Your task to perform on an android device: Open Chrome and go to the settings page Image 0: 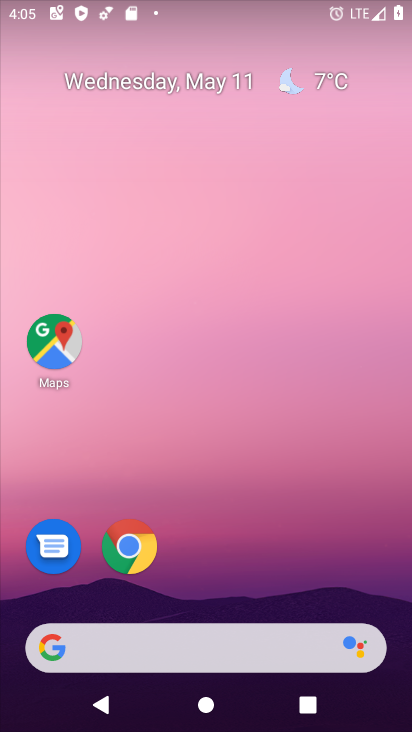
Step 0: drag from (379, 661) to (256, 39)
Your task to perform on an android device: Open Chrome and go to the settings page Image 1: 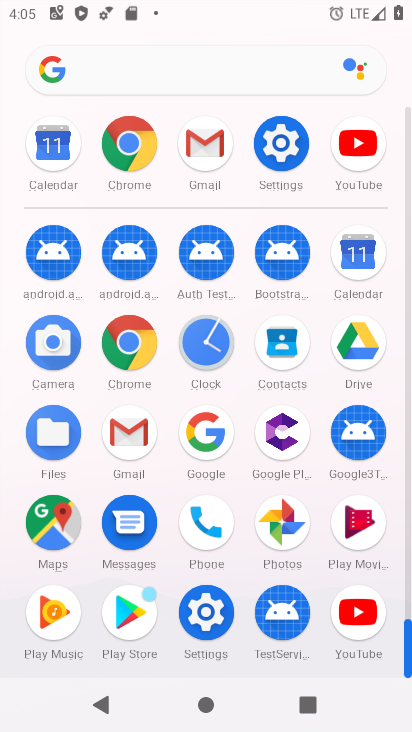
Step 1: click (138, 336)
Your task to perform on an android device: Open Chrome and go to the settings page Image 2: 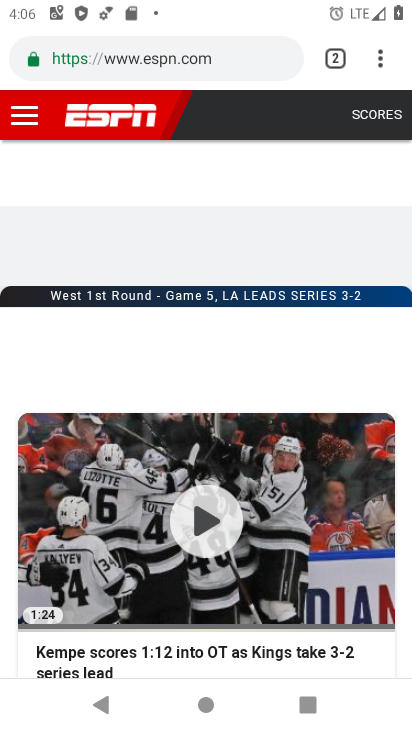
Step 2: press home button
Your task to perform on an android device: Open Chrome and go to the settings page Image 3: 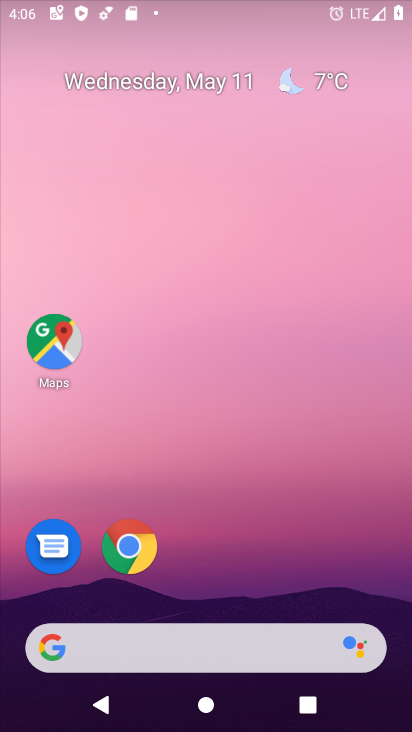
Step 3: drag from (275, 631) to (354, 12)
Your task to perform on an android device: Open Chrome and go to the settings page Image 4: 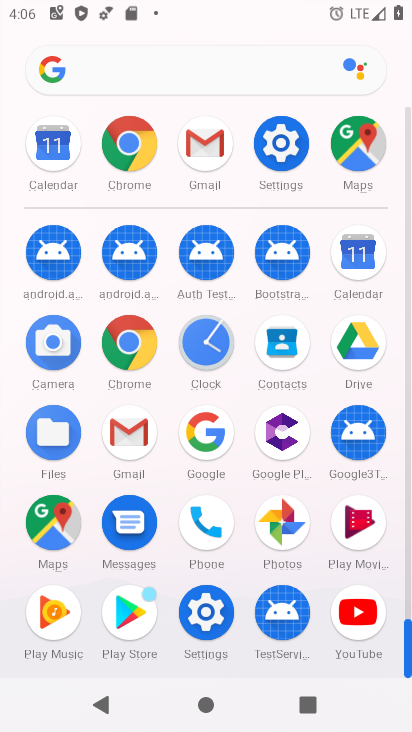
Step 4: click (125, 347)
Your task to perform on an android device: Open Chrome and go to the settings page Image 5: 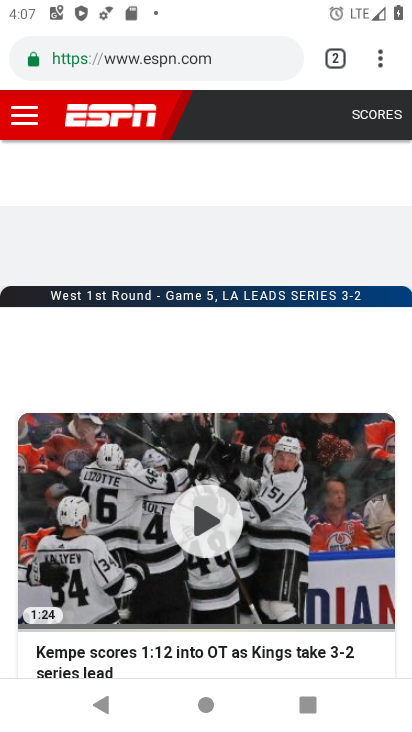
Step 5: task complete